Your task to perform on an android device: check android version Image 0: 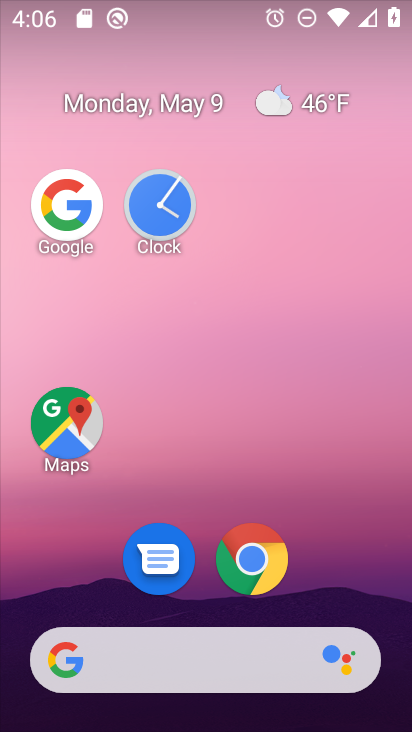
Step 0: drag from (339, 599) to (347, 234)
Your task to perform on an android device: check android version Image 1: 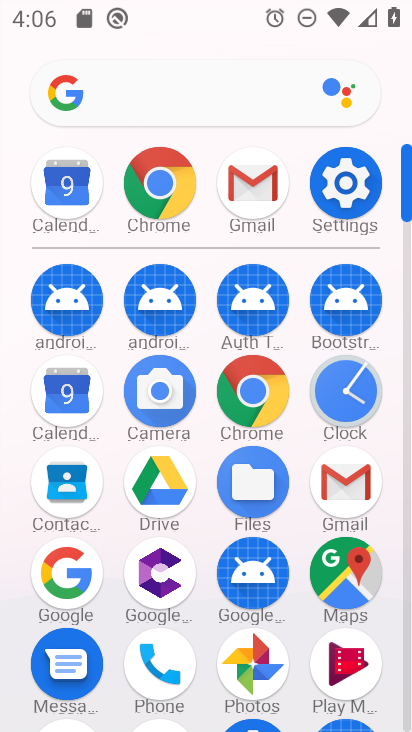
Step 1: drag from (343, 193) to (97, 326)
Your task to perform on an android device: check android version Image 2: 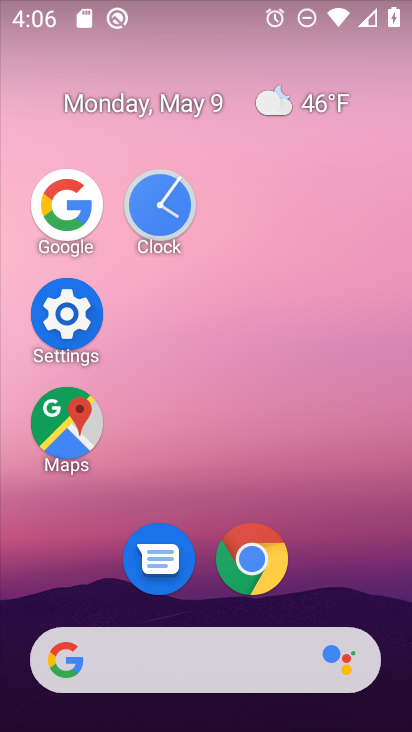
Step 2: click (72, 317)
Your task to perform on an android device: check android version Image 3: 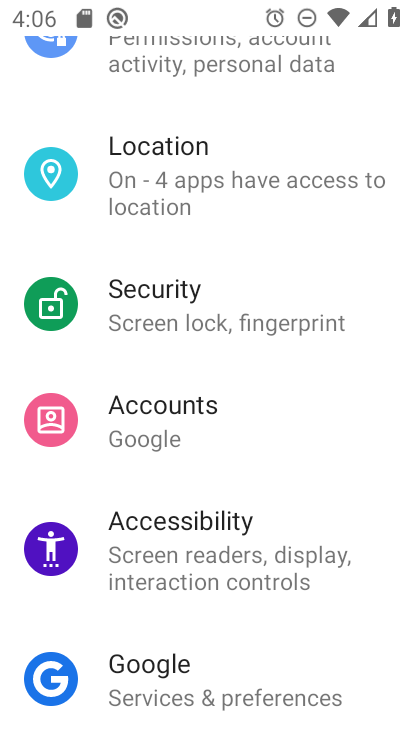
Step 3: drag from (209, 626) to (241, 127)
Your task to perform on an android device: check android version Image 4: 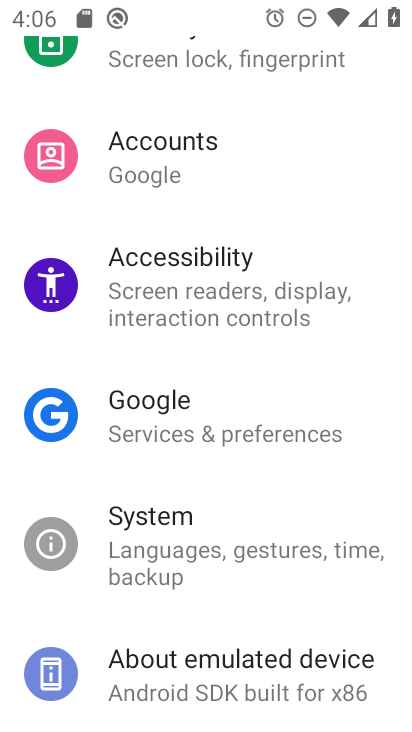
Step 4: drag from (253, 648) to (258, 240)
Your task to perform on an android device: check android version Image 5: 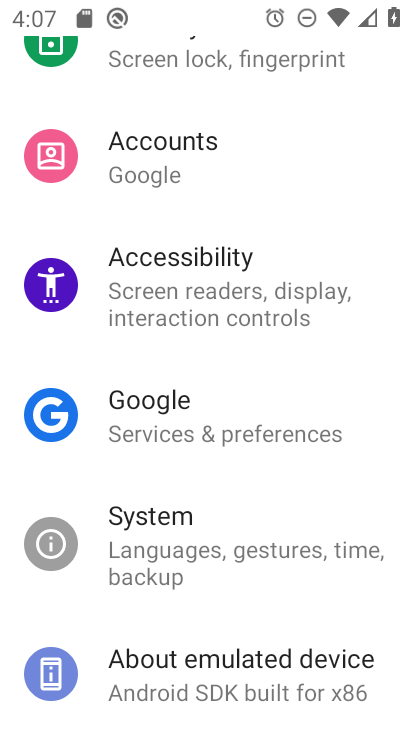
Step 5: click (295, 180)
Your task to perform on an android device: check android version Image 6: 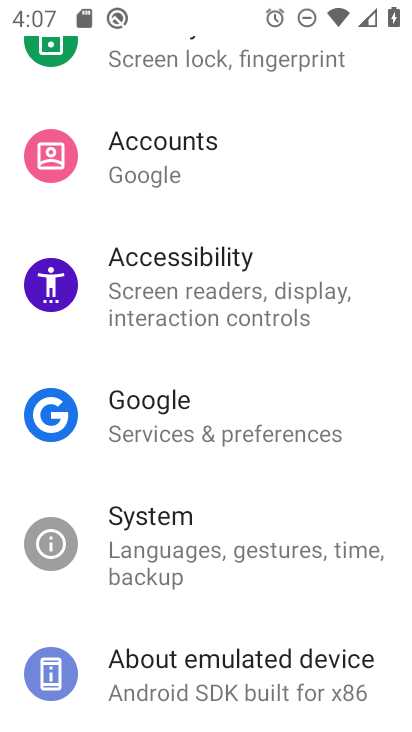
Step 6: click (183, 664)
Your task to perform on an android device: check android version Image 7: 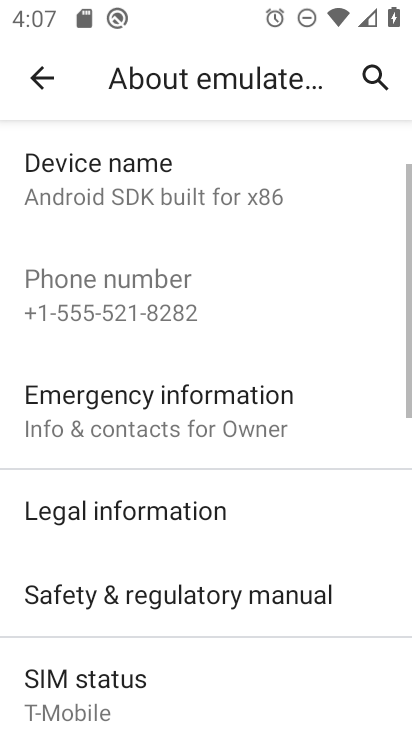
Step 7: drag from (187, 646) to (217, 211)
Your task to perform on an android device: check android version Image 8: 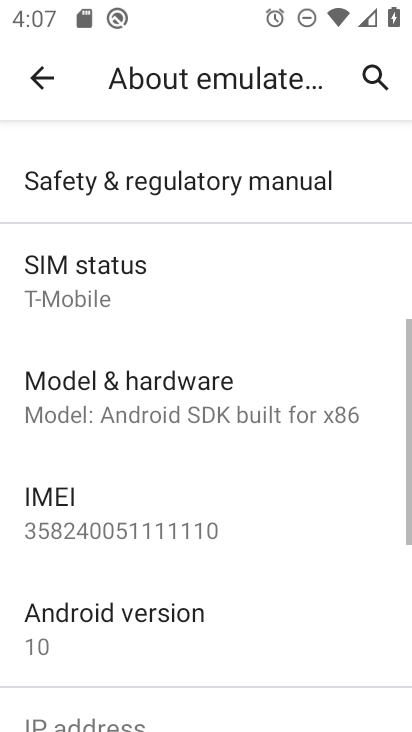
Step 8: click (169, 622)
Your task to perform on an android device: check android version Image 9: 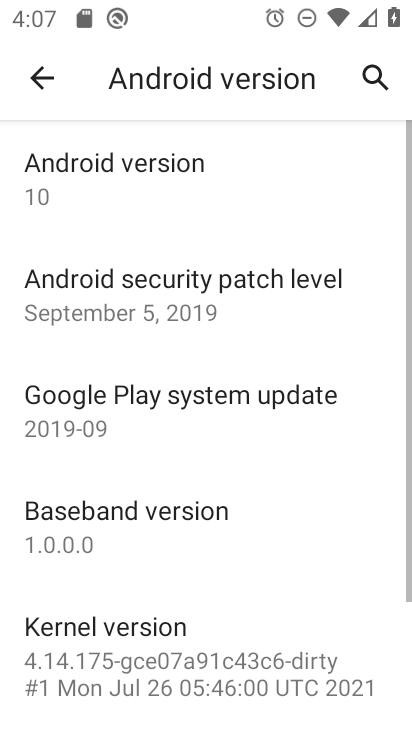
Step 9: task complete